Your task to perform on an android device: toggle translation in the chrome app Image 0: 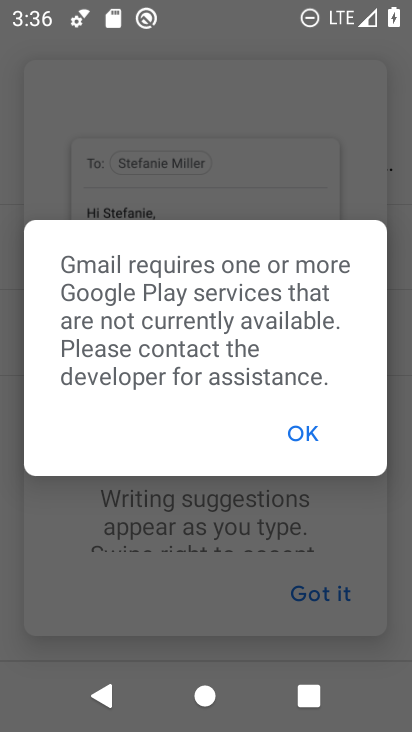
Step 0: press home button
Your task to perform on an android device: toggle translation in the chrome app Image 1: 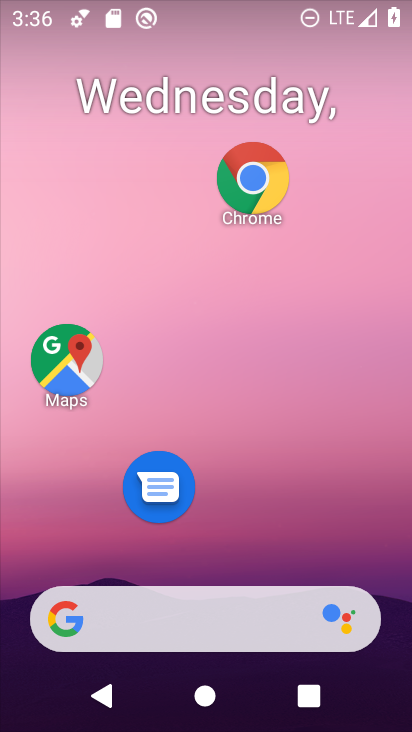
Step 1: drag from (212, 578) to (191, 22)
Your task to perform on an android device: toggle translation in the chrome app Image 2: 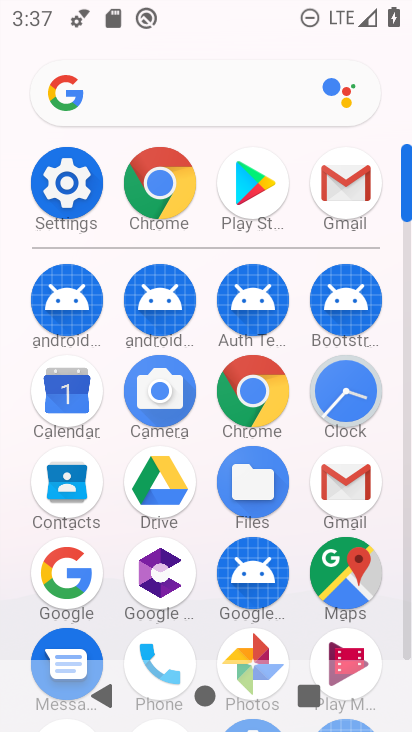
Step 2: click (259, 378)
Your task to perform on an android device: toggle translation in the chrome app Image 3: 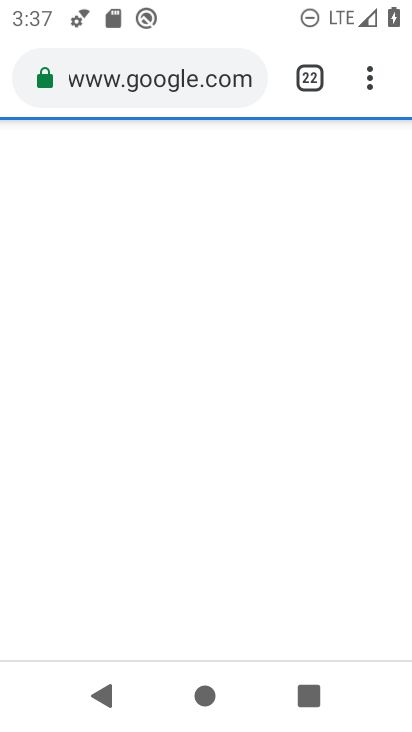
Step 3: click (362, 70)
Your task to perform on an android device: toggle translation in the chrome app Image 4: 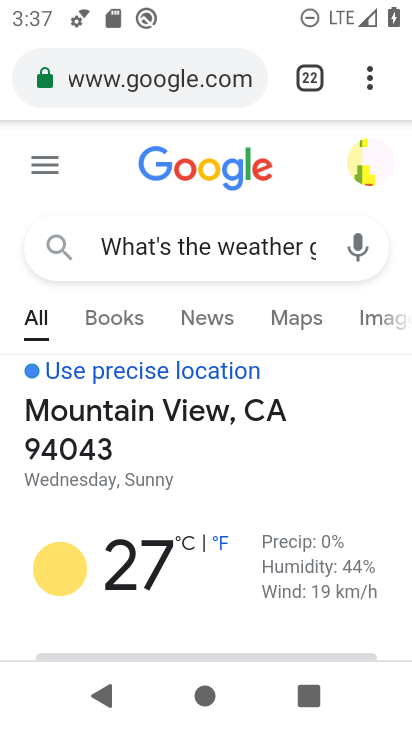
Step 4: click (371, 59)
Your task to perform on an android device: toggle translation in the chrome app Image 5: 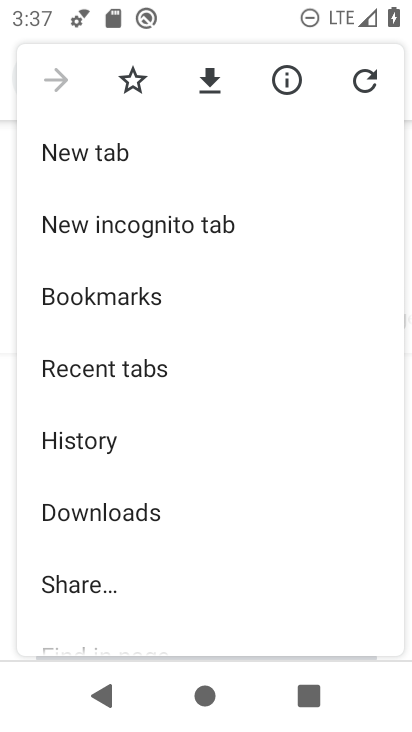
Step 5: drag from (249, 560) to (265, 169)
Your task to perform on an android device: toggle translation in the chrome app Image 6: 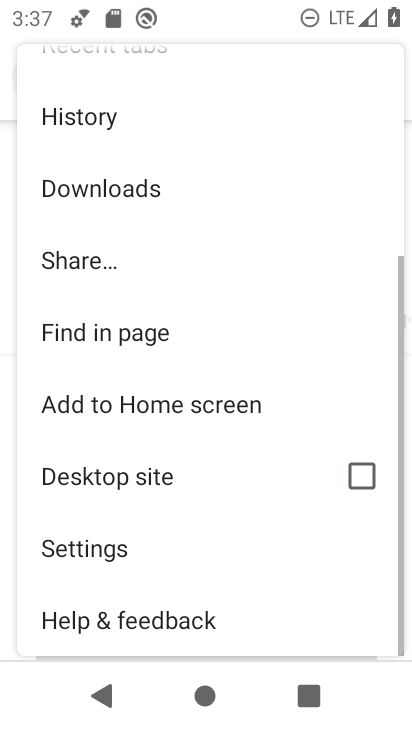
Step 6: click (138, 547)
Your task to perform on an android device: toggle translation in the chrome app Image 7: 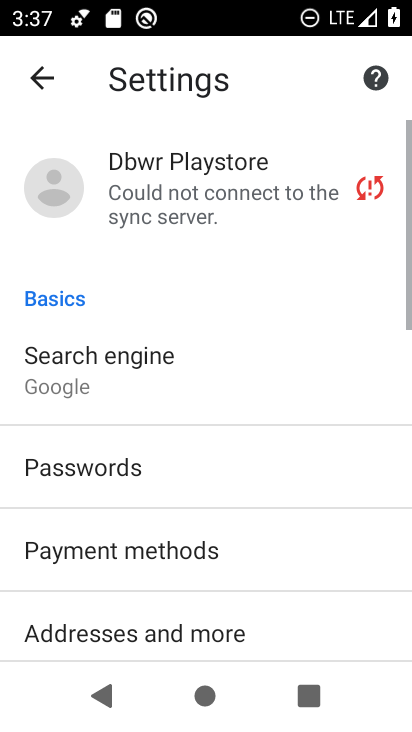
Step 7: drag from (194, 579) to (225, 196)
Your task to perform on an android device: toggle translation in the chrome app Image 8: 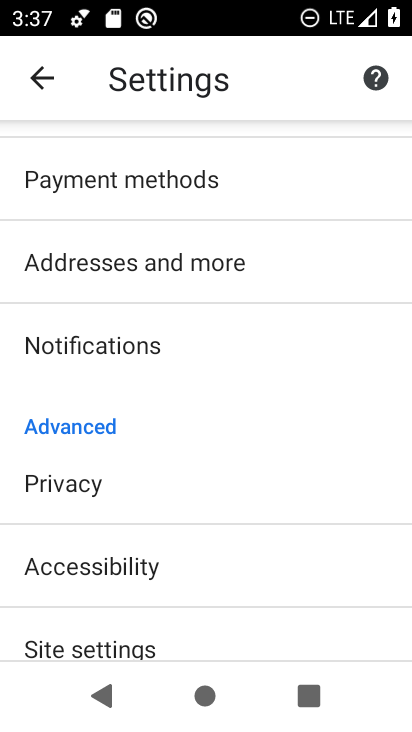
Step 8: drag from (132, 553) to (197, 223)
Your task to perform on an android device: toggle translation in the chrome app Image 9: 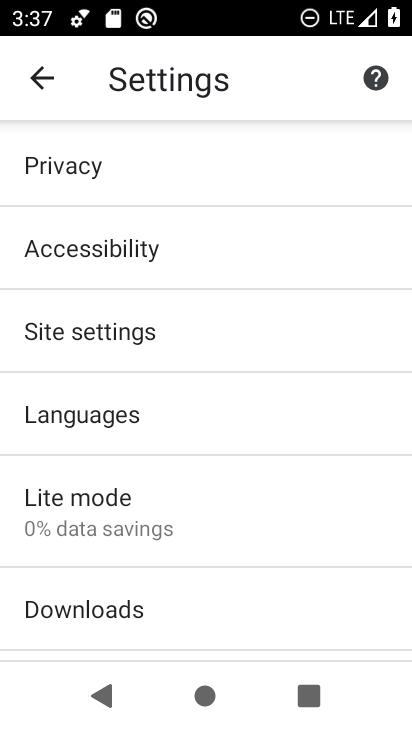
Step 9: click (187, 390)
Your task to perform on an android device: toggle translation in the chrome app Image 10: 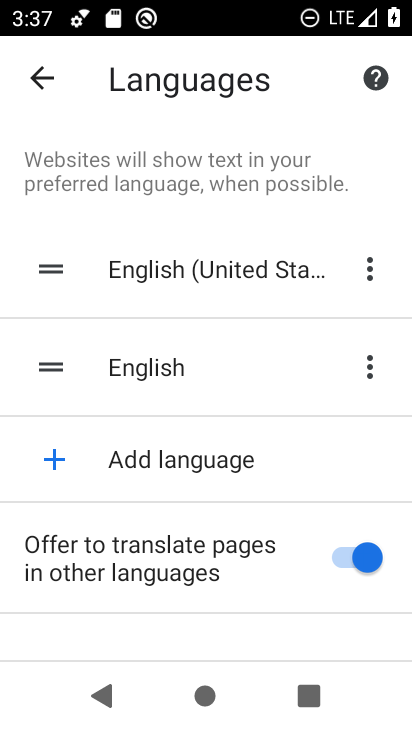
Step 10: click (347, 555)
Your task to perform on an android device: toggle translation in the chrome app Image 11: 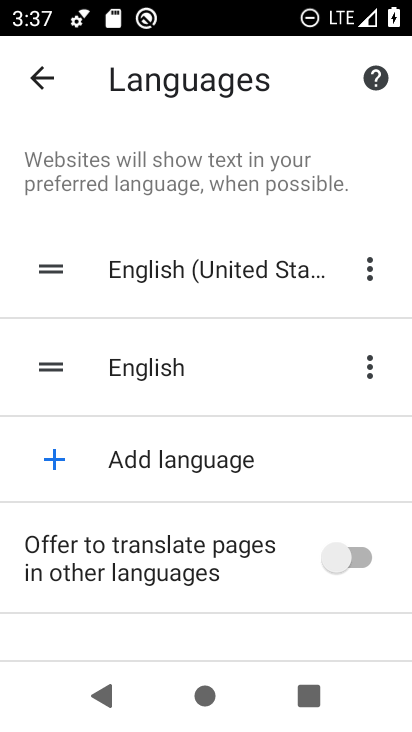
Step 11: task complete